Your task to perform on an android device: Go to wifi settings Image 0: 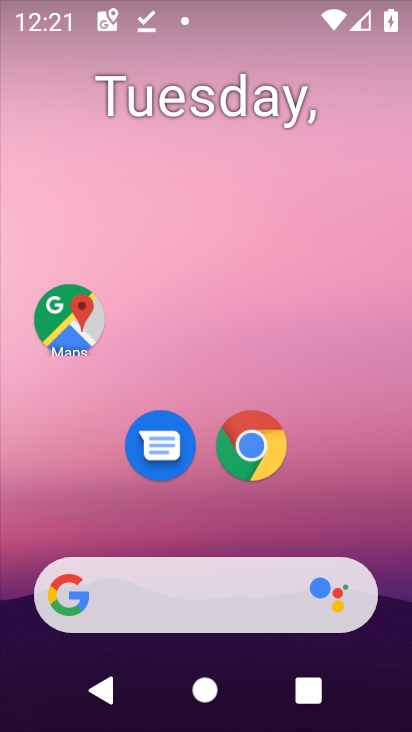
Step 0: click (325, 511)
Your task to perform on an android device: Go to wifi settings Image 1: 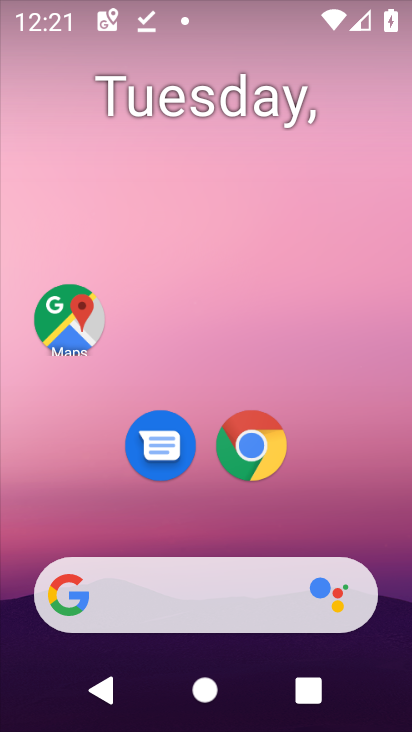
Step 1: drag from (325, 511) to (223, 80)
Your task to perform on an android device: Go to wifi settings Image 2: 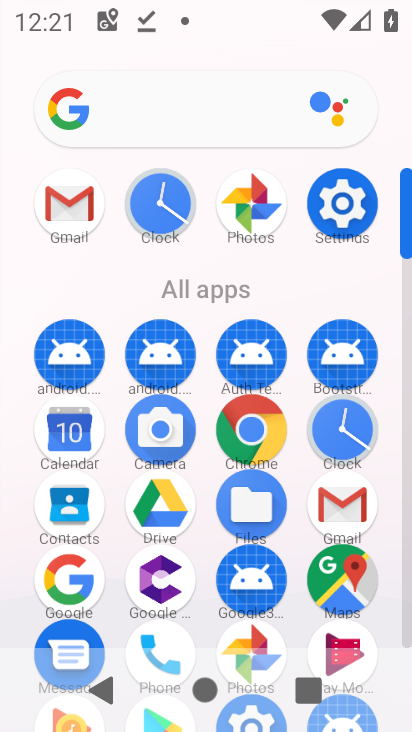
Step 2: click (335, 210)
Your task to perform on an android device: Go to wifi settings Image 3: 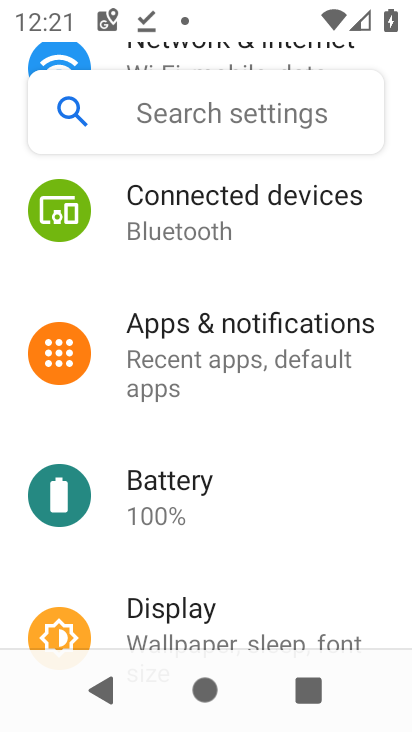
Step 3: drag from (246, 287) to (246, 569)
Your task to perform on an android device: Go to wifi settings Image 4: 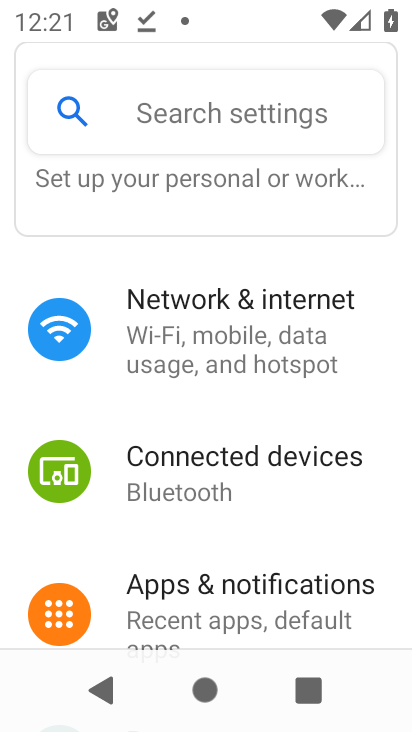
Step 4: drag from (158, 241) to (221, 604)
Your task to perform on an android device: Go to wifi settings Image 5: 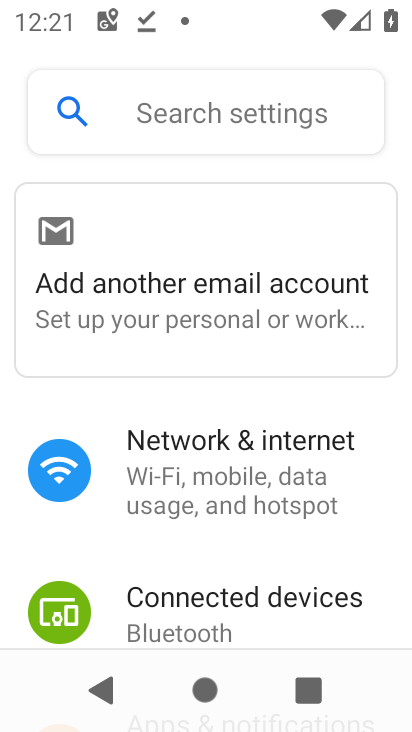
Step 5: click (188, 435)
Your task to perform on an android device: Go to wifi settings Image 6: 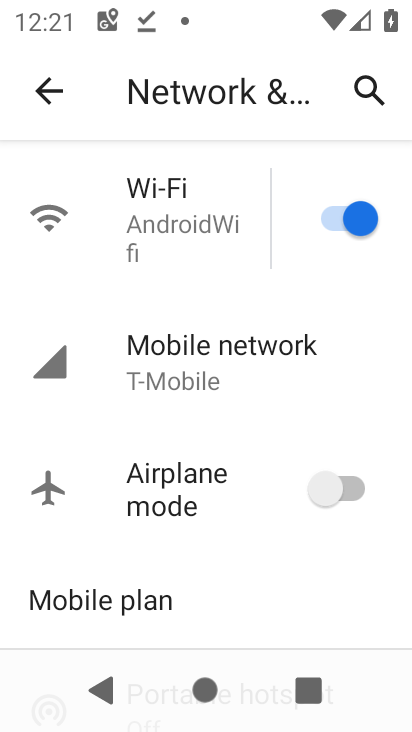
Step 6: click (153, 178)
Your task to perform on an android device: Go to wifi settings Image 7: 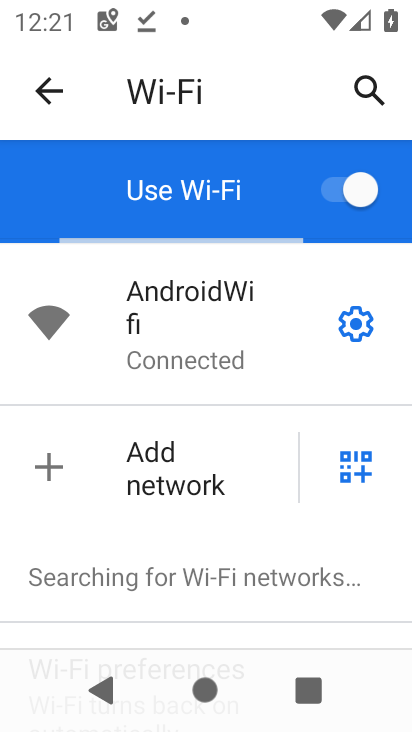
Step 7: task complete